Your task to perform on an android device: What's the weather? Image 0: 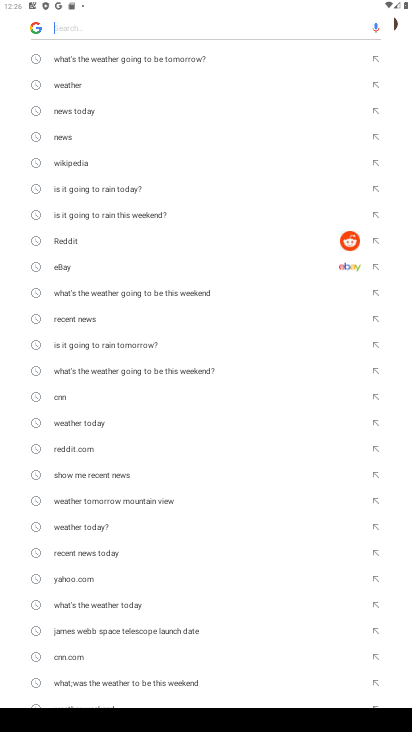
Step 0: click (53, 81)
Your task to perform on an android device: What's the weather? Image 1: 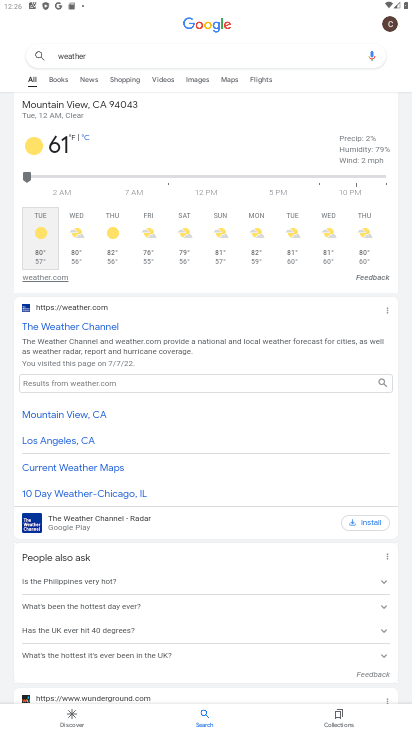
Step 1: task complete